Your task to perform on an android device: Go to CNN.com Image 0: 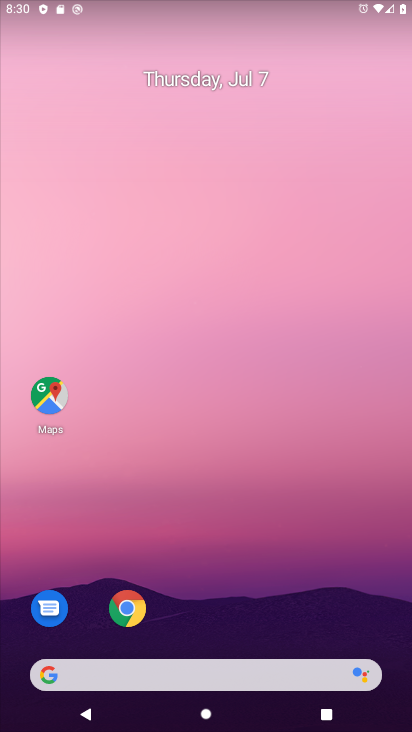
Step 0: click (181, 313)
Your task to perform on an android device: Go to CNN.com Image 1: 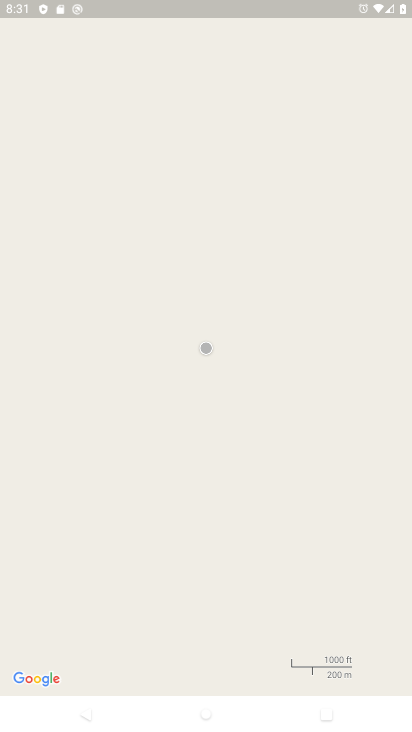
Step 1: press home button
Your task to perform on an android device: Go to CNN.com Image 2: 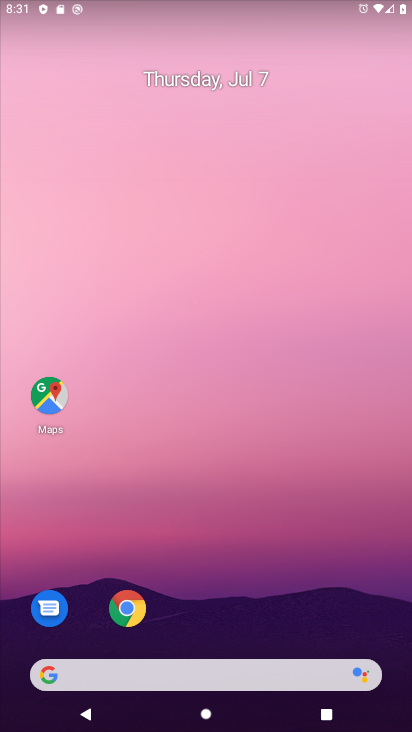
Step 2: drag from (188, 640) to (185, 346)
Your task to perform on an android device: Go to CNN.com Image 3: 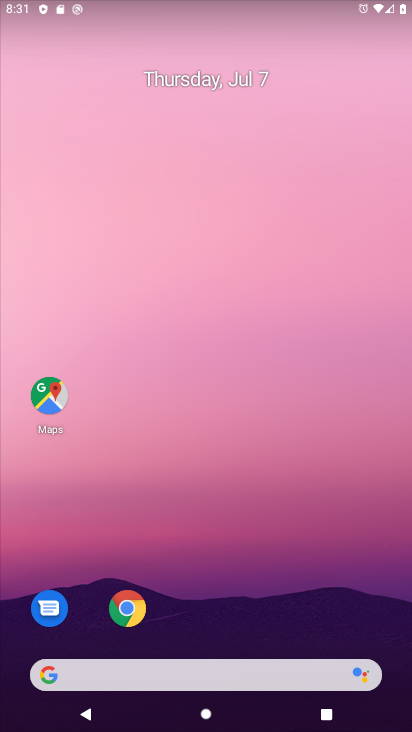
Step 3: drag from (206, 667) to (194, 344)
Your task to perform on an android device: Go to CNN.com Image 4: 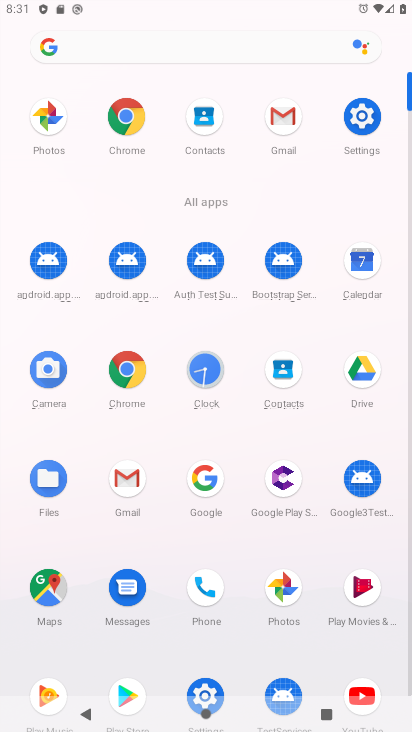
Step 4: click (197, 483)
Your task to perform on an android device: Go to CNN.com Image 5: 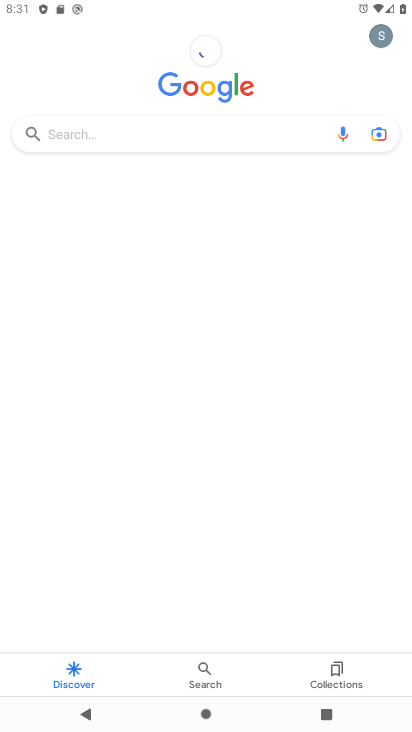
Step 5: click (152, 124)
Your task to perform on an android device: Go to CNN.com Image 6: 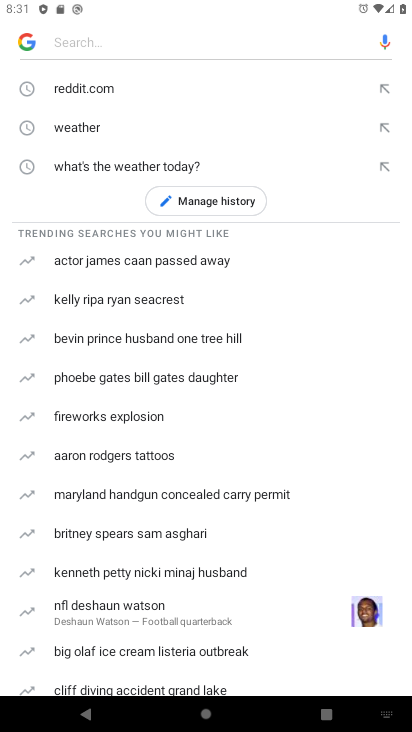
Step 6: type "CNN.com"
Your task to perform on an android device: Go to CNN.com Image 7: 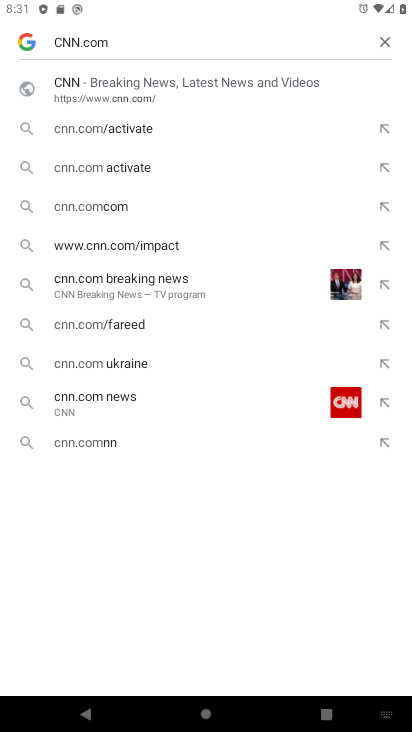
Step 7: click (168, 97)
Your task to perform on an android device: Go to CNN.com Image 8: 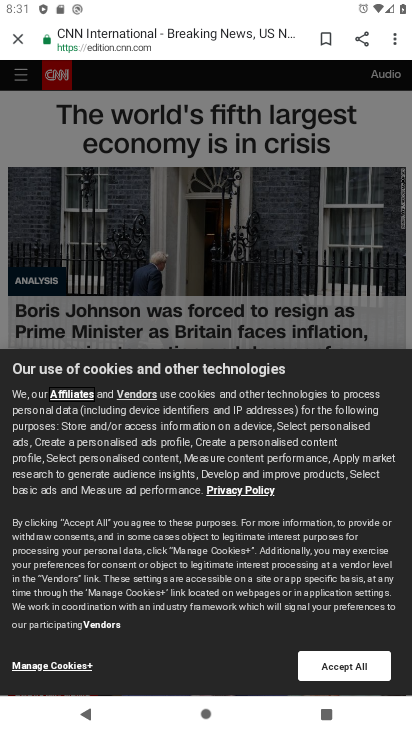
Step 8: task complete